Your task to perform on an android device: remove spam from my inbox in the gmail app Image 0: 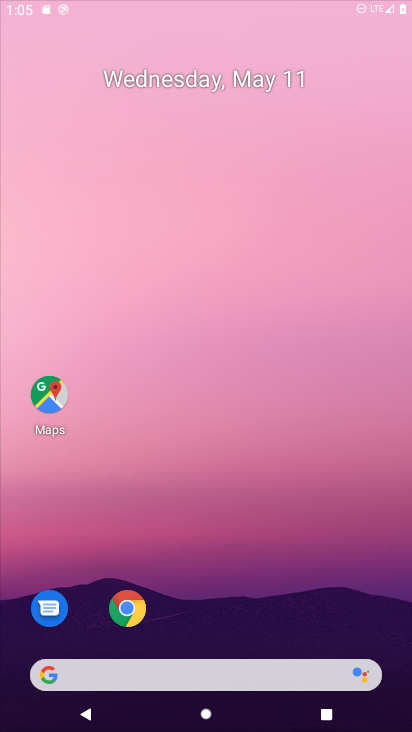
Step 0: click (281, 49)
Your task to perform on an android device: remove spam from my inbox in the gmail app Image 1: 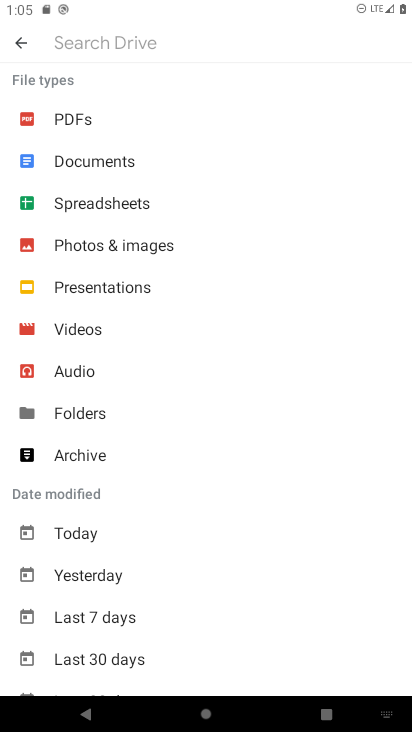
Step 1: press home button
Your task to perform on an android device: remove spam from my inbox in the gmail app Image 2: 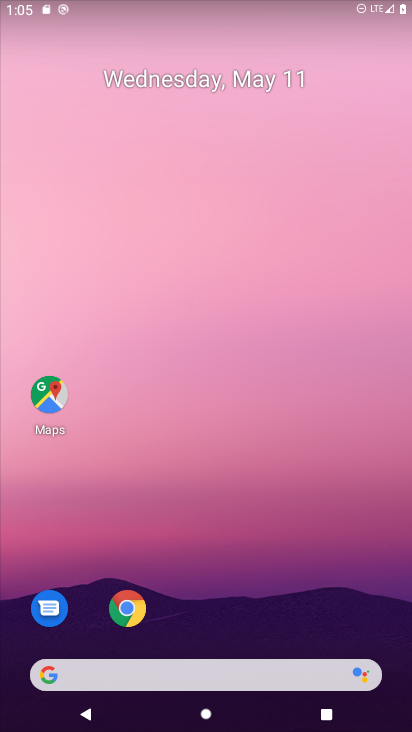
Step 2: drag from (238, 559) to (261, 38)
Your task to perform on an android device: remove spam from my inbox in the gmail app Image 3: 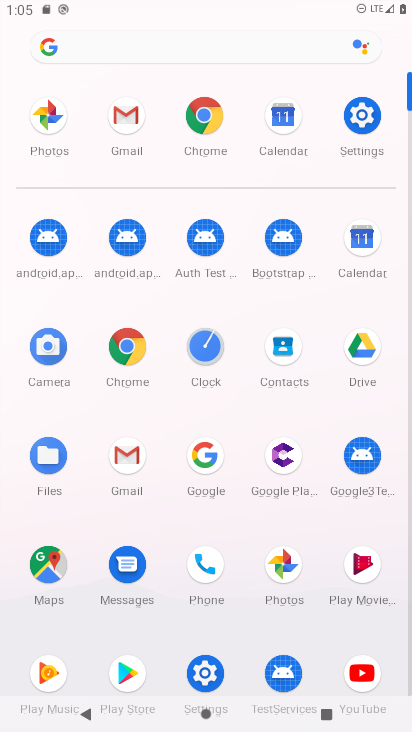
Step 3: click (120, 112)
Your task to perform on an android device: remove spam from my inbox in the gmail app Image 4: 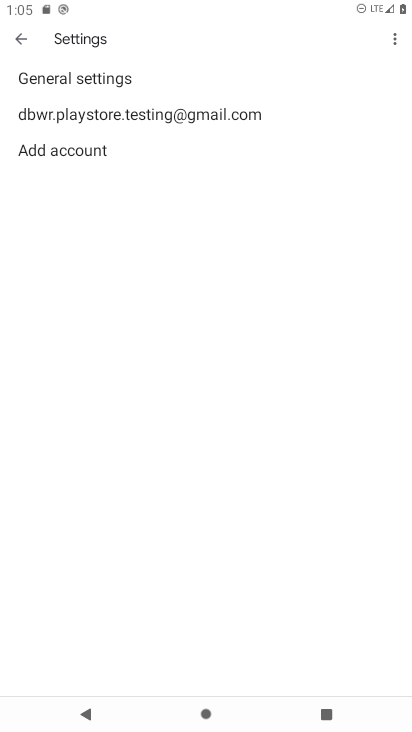
Step 4: click (17, 27)
Your task to perform on an android device: remove spam from my inbox in the gmail app Image 5: 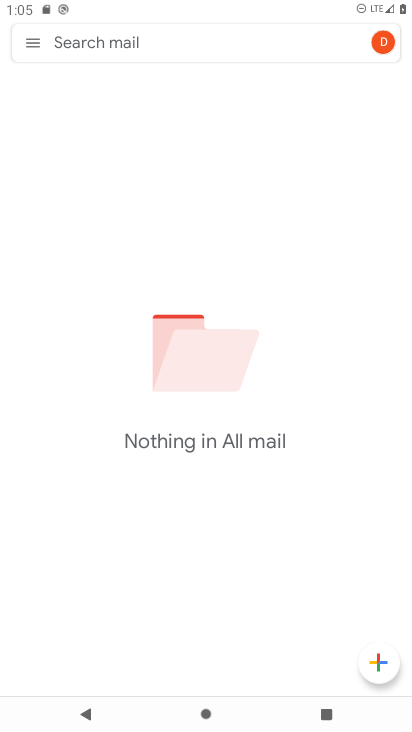
Step 5: click (27, 42)
Your task to perform on an android device: remove spam from my inbox in the gmail app Image 6: 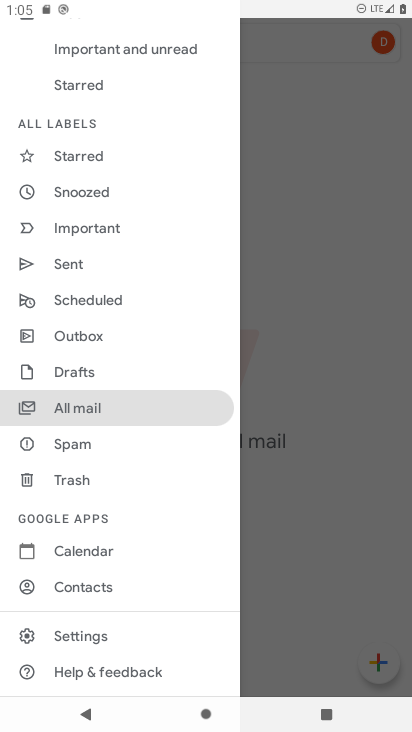
Step 6: click (93, 441)
Your task to perform on an android device: remove spam from my inbox in the gmail app Image 7: 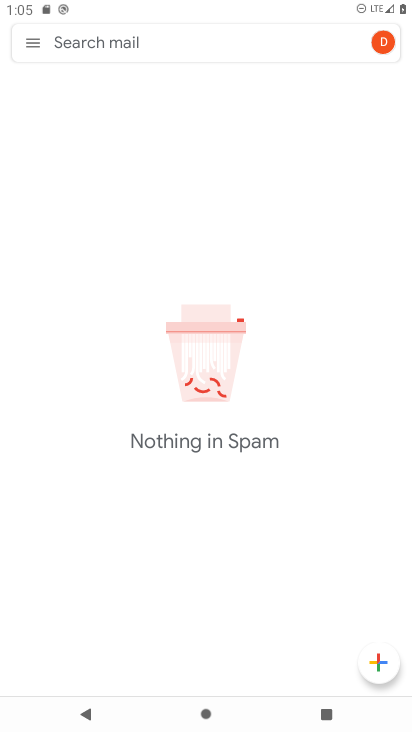
Step 7: task complete